Your task to perform on an android device: Open Youtube and go to "Your channel" Image 0: 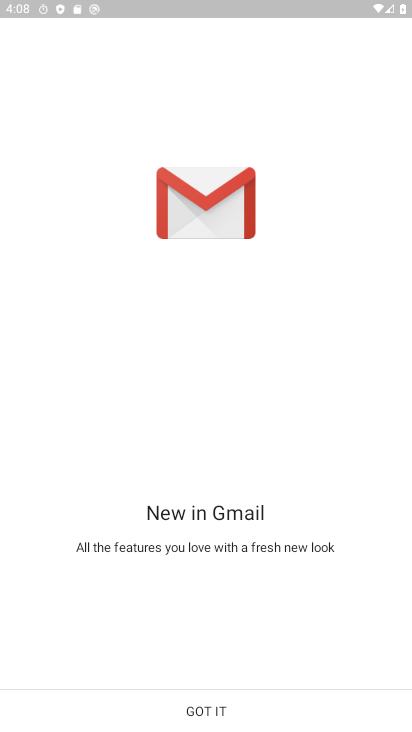
Step 0: press home button
Your task to perform on an android device: Open Youtube and go to "Your channel" Image 1: 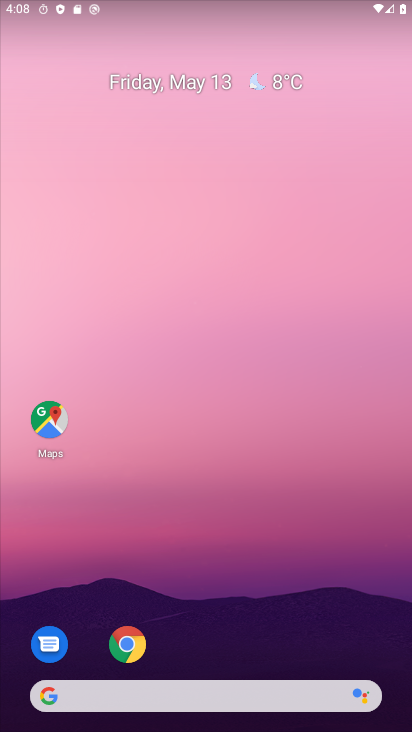
Step 1: drag from (243, 644) to (249, 230)
Your task to perform on an android device: Open Youtube and go to "Your channel" Image 2: 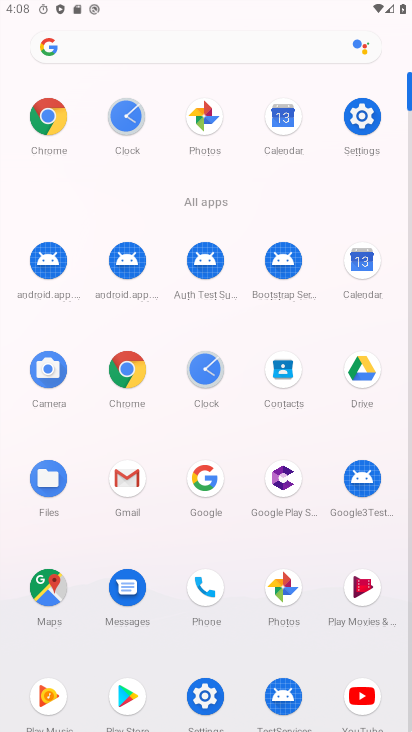
Step 2: click (358, 691)
Your task to perform on an android device: Open Youtube and go to "Your channel" Image 3: 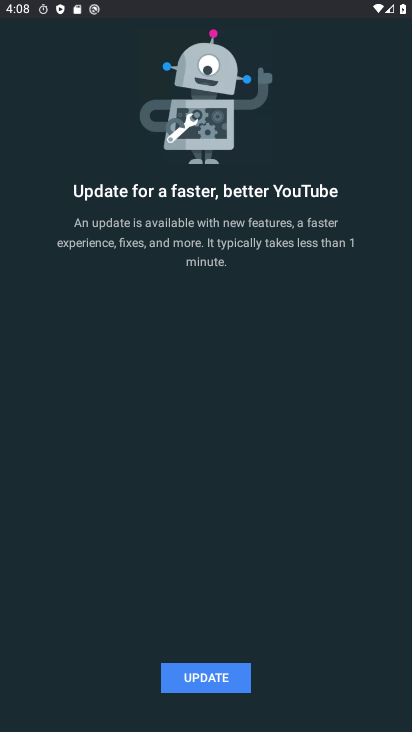
Step 3: click (235, 667)
Your task to perform on an android device: Open Youtube and go to "Your channel" Image 4: 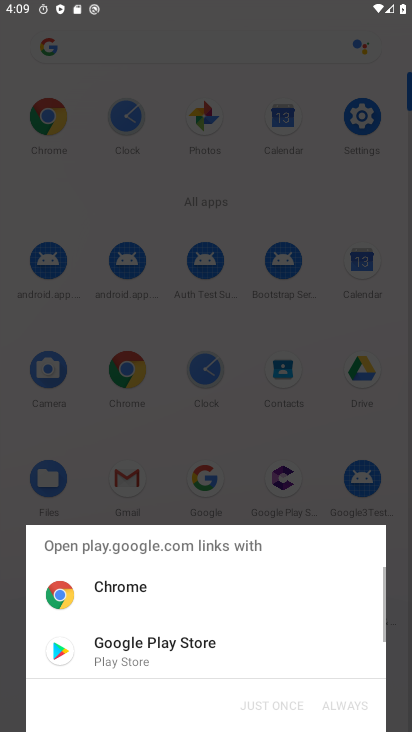
Step 4: click (143, 649)
Your task to perform on an android device: Open Youtube and go to "Your channel" Image 5: 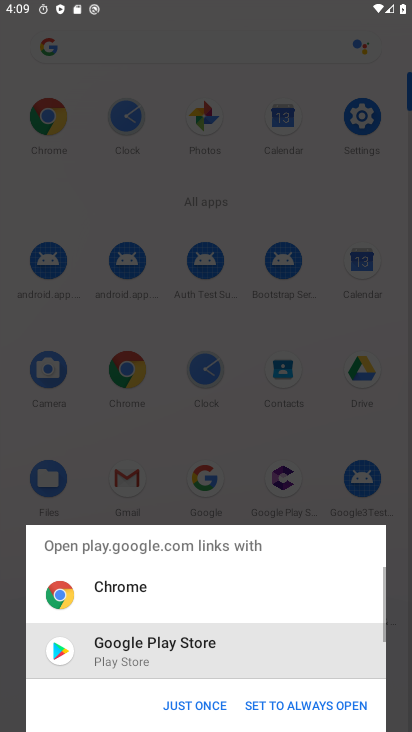
Step 5: click (133, 643)
Your task to perform on an android device: Open Youtube and go to "Your channel" Image 6: 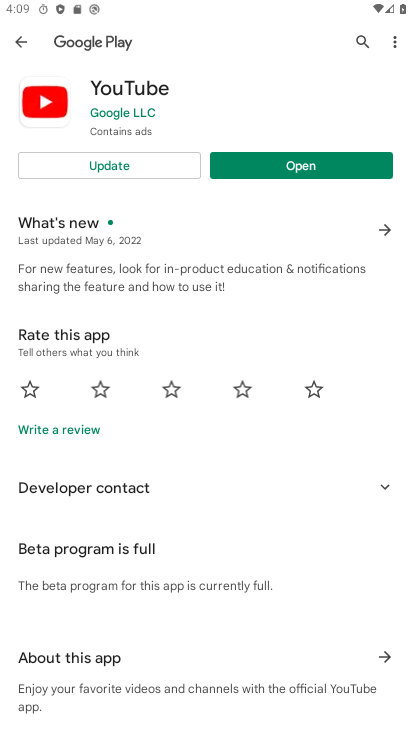
Step 6: click (173, 168)
Your task to perform on an android device: Open Youtube and go to "Your channel" Image 7: 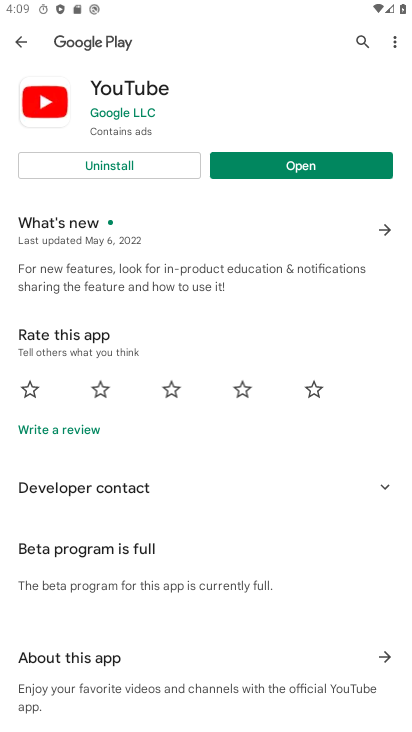
Step 7: click (328, 162)
Your task to perform on an android device: Open Youtube and go to "Your channel" Image 8: 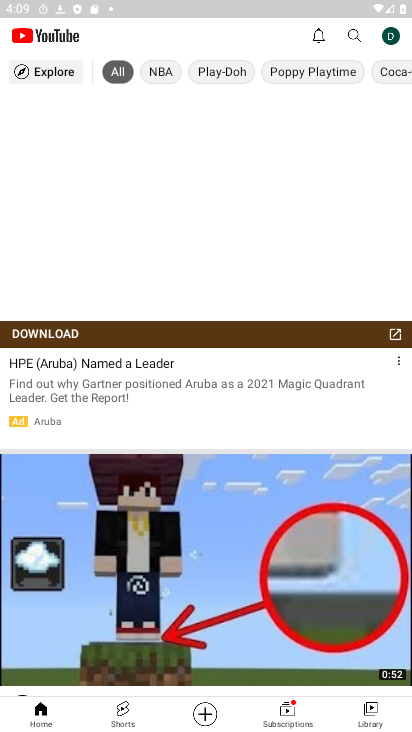
Step 8: click (392, 38)
Your task to perform on an android device: Open Youtube and go to "Your channel" Image 9: 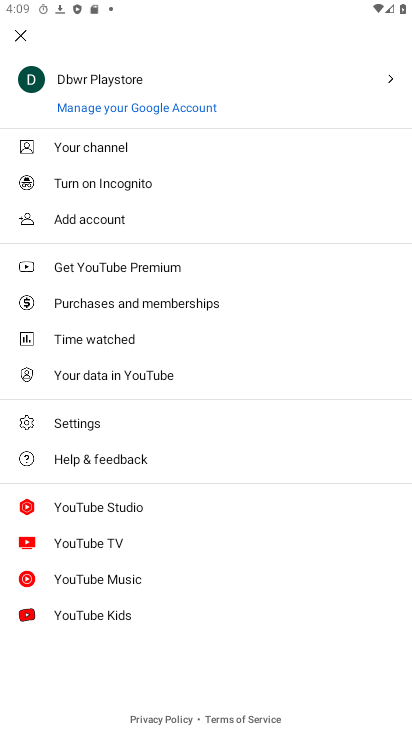
Step 9: click (99, 144)
Your task to perform on an android device: Open Youtube and go to "Your channel" Image 10: 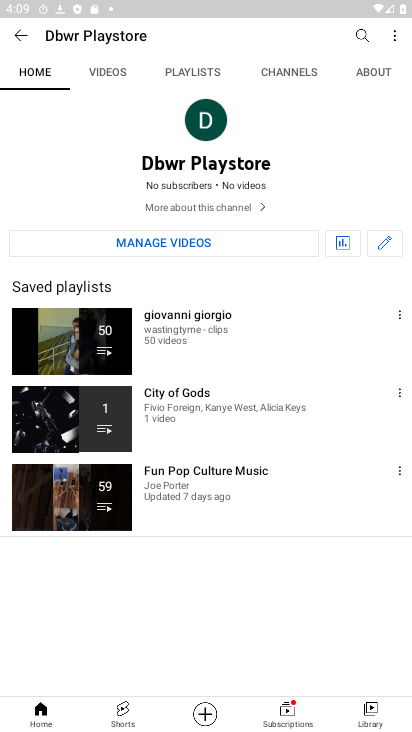
Step 10: task complete